Your task to perform on an android device: toggle wifi Image 0: 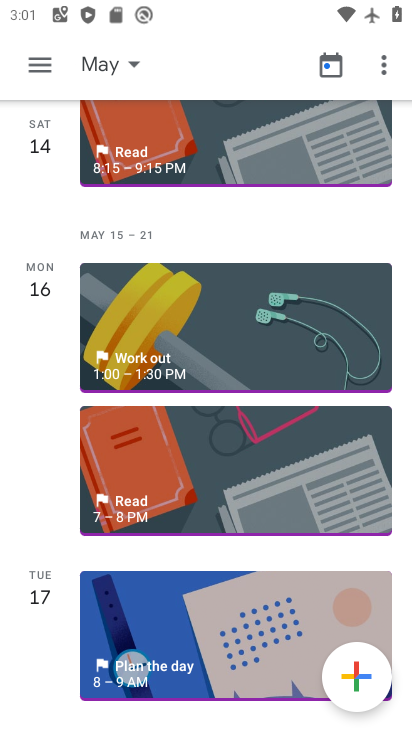
Step 0: press home button
Your task to perform on an android device: toggle wifi Image 1: 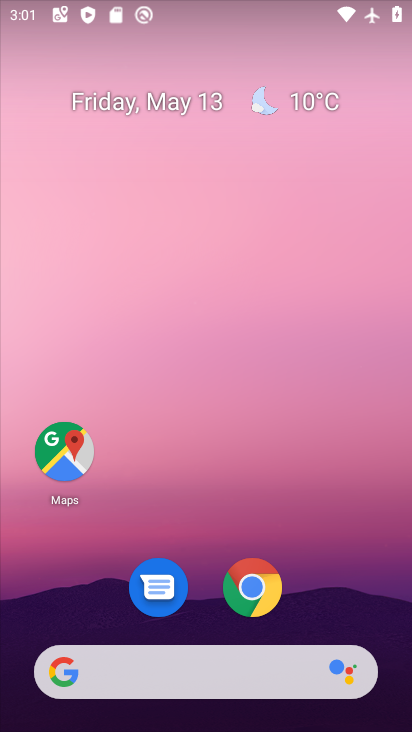
Step 1: drag from (365, 608) to (295, 8)
Your task to perform on an android device: toggle wifi Image 2: 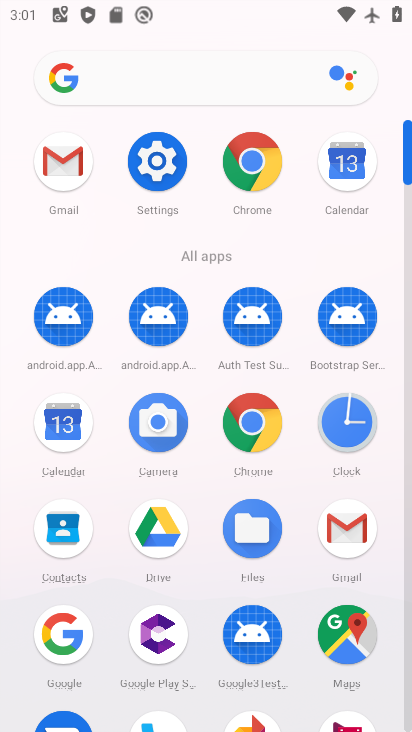
Step 2: click (168, 156)
Your task to perform on an android device: toggle wifi Image 3: 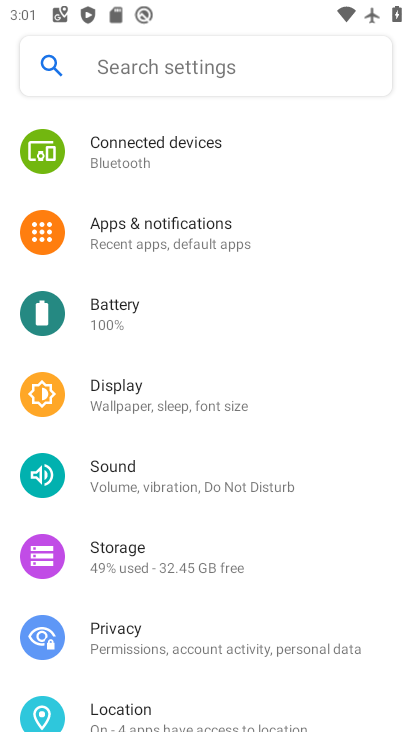
Step 3: drag from (193, 188) to (318, 625)
Your task to perform on an android device: toggle wifi Image 4: 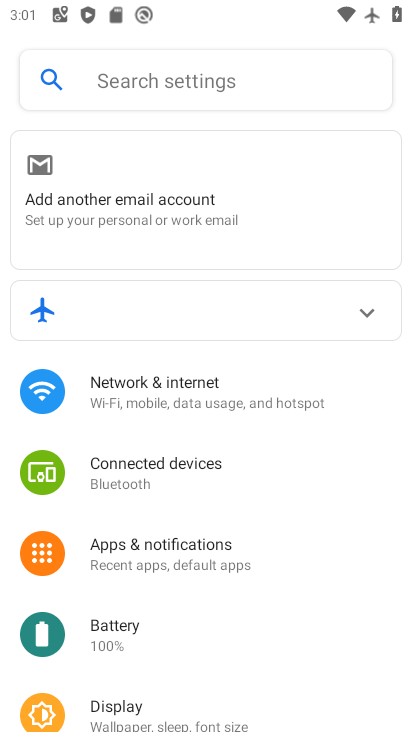
Step 4: click (184, 382)
Your task to perform on an android device: toggle wifi Image 5: 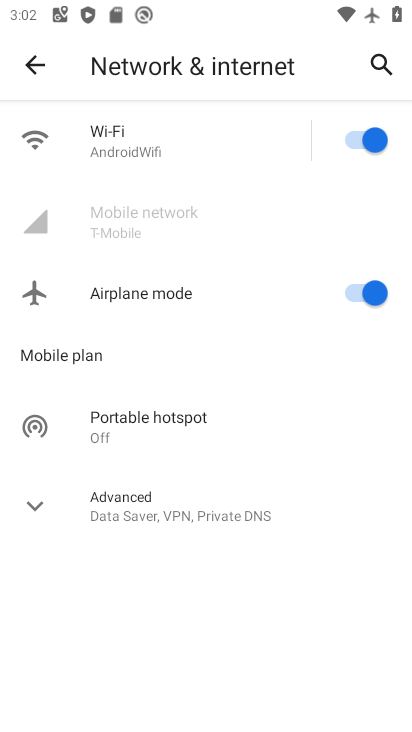
Step 5: click (363, 132)
Your task to perform on an android device: toggle wifi Image 6: 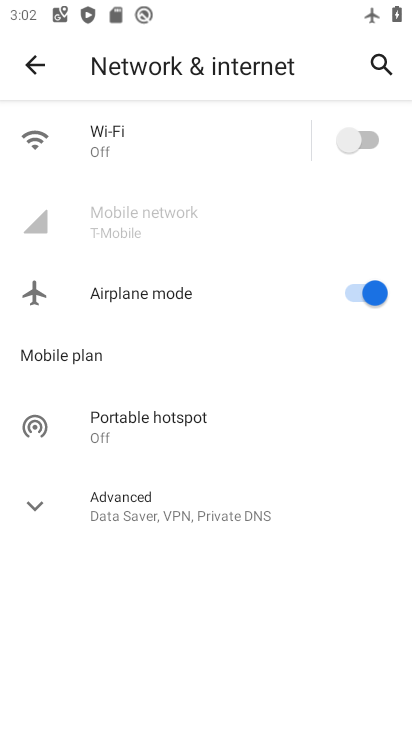
Step 6: task complete